Your task to perform on an android device: turn pop-ups off in chrome Image 0: 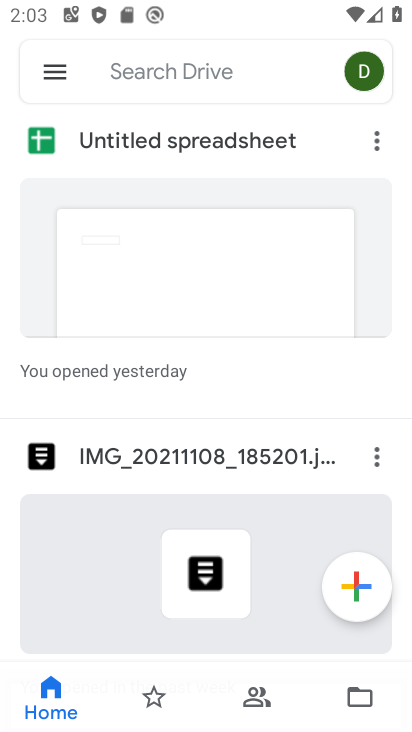
Step 0: press home button
Your task to perform on an android device: turn pop-ups off in chrome Image 1: 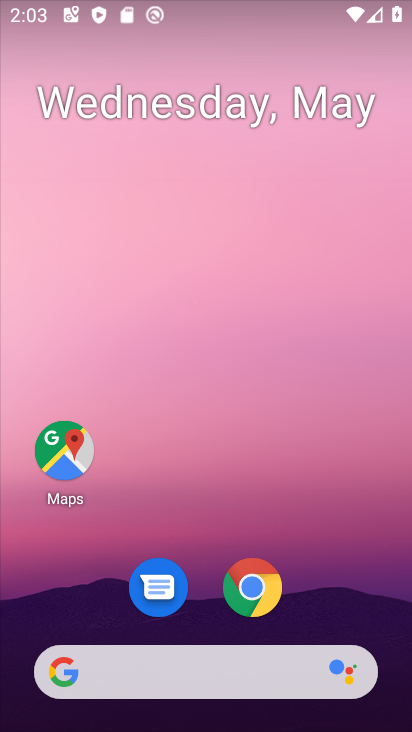
Step 1: click (264, 574)
Your task to perform on an android device: turn pop-ups off in chrome Image 2: 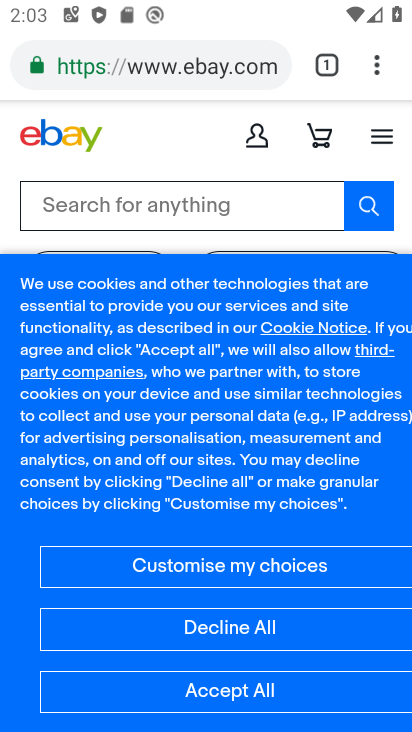
Step 2: click (389, 68)
Your task to perform on an android device: turn pop-ups off in chrome Image 3: 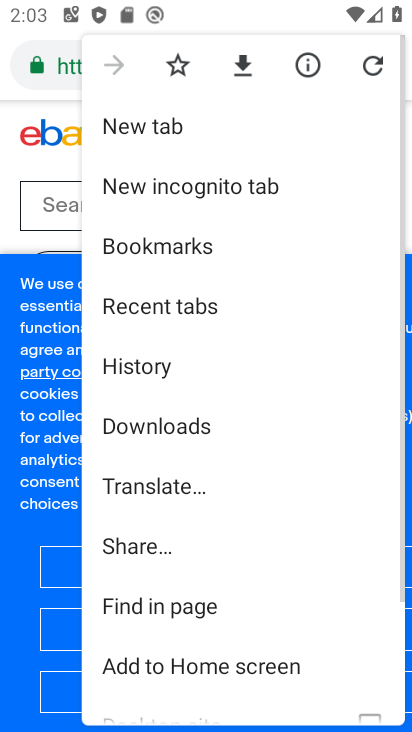
Step 3: drag from (210, 615) to (240, 153)
Your task to perform on an android device: turn pop-ups off in chrome Image 4: 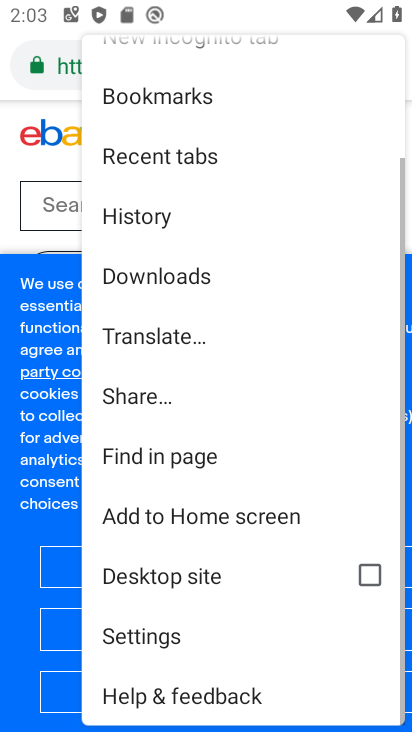
Step 4: click (207, 637)
Your task to perform on an android device: turn pop-ups off in chrome Image 5: 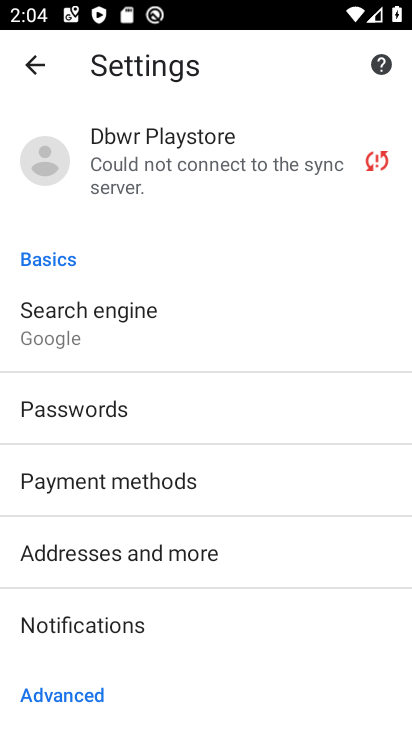
Step 5: drag from (162, 705) to (222, 194)
Your task to perform on an android device: turn pop-ups off in chrome Image 6: 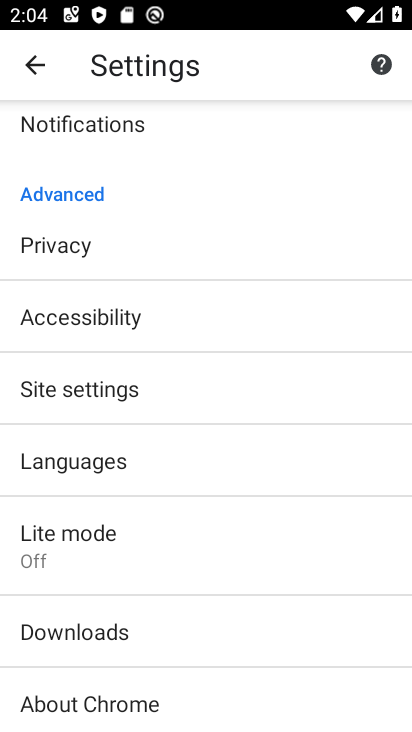
Step 6: drag from (117, 631) to (136, 458)
Your task to perform on an android device: turn pop-ups off in chrome Image 7: 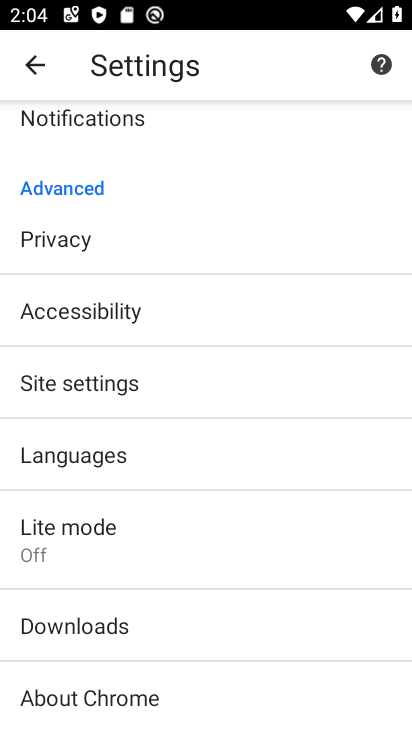
Step 7: click (126, 366)
Your task to perform on an android device: turn pop-ups off in chrome Image 8: 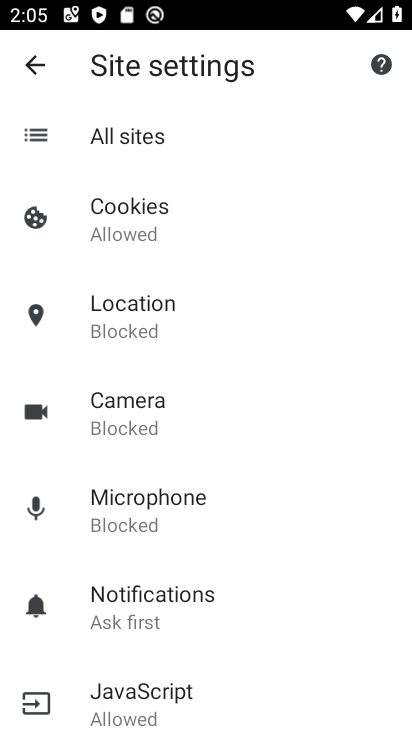
Step 8: drag from (190, 620) to (202, 258)
Your task to perform on an android device: turn pop-ups off in chrome Image 9: 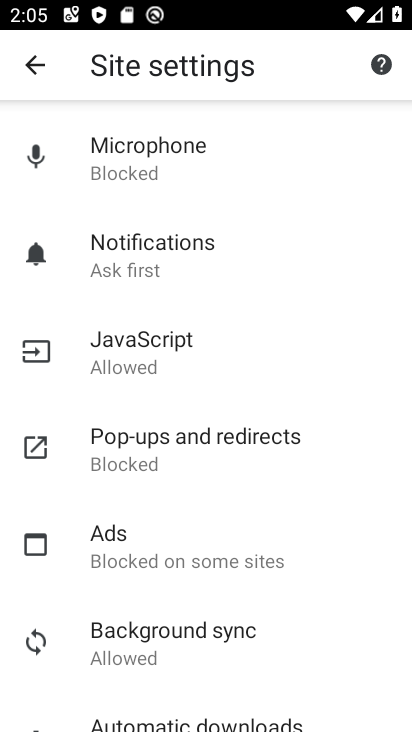
Step 9: click (155, 440)
Your task to perform on an android device: turn pop-ups off in chrome Image 10: 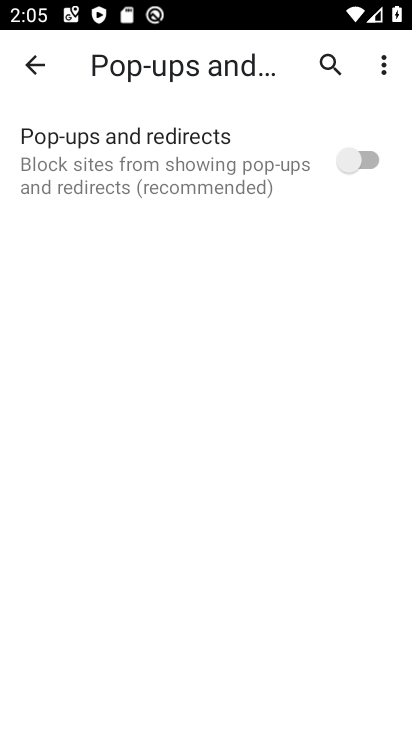
Step 10: task complete